Your task to perform on an android device: turn off sleep mode Image 0: 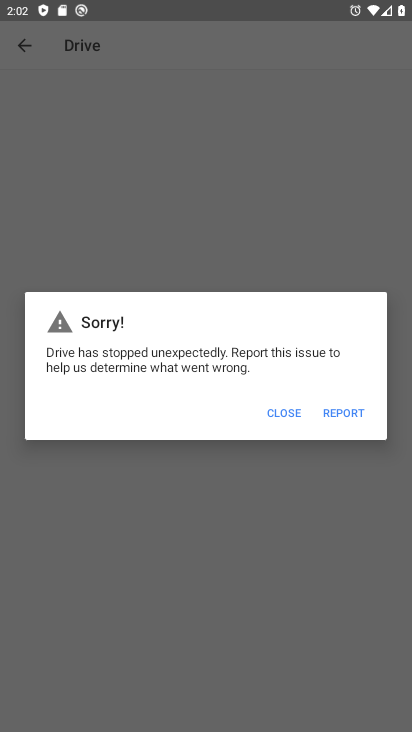
Step 0: press home button
Your task to perform on an android device: turn off sleep mode Image 1: 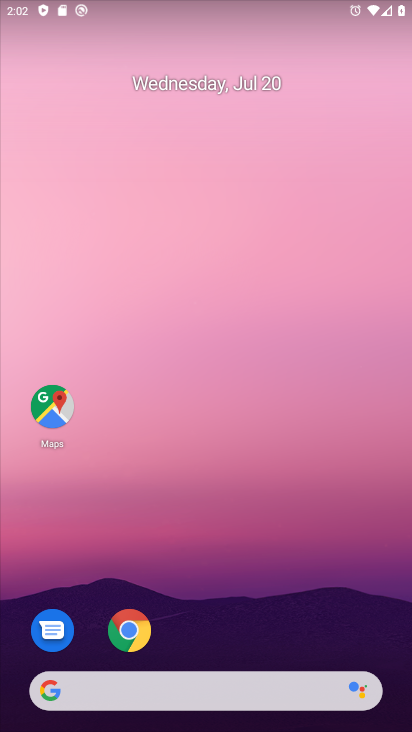
Step 1: drag from (56, 545) to (293, 135)
Your task to perform on an android device: turn off sleep mode Image 2: 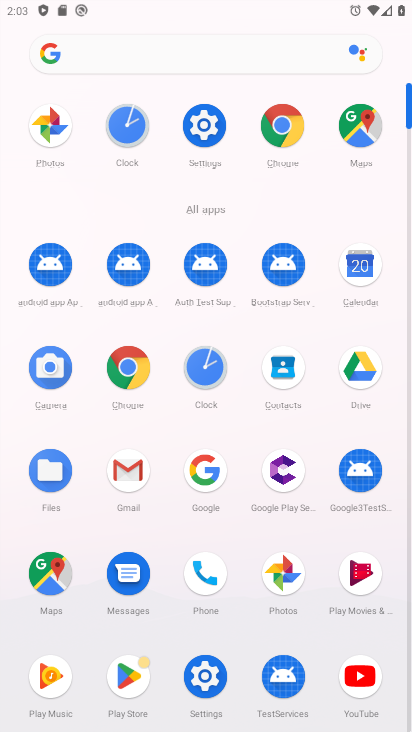
Step 2: click (209, 129)
Your task to perform on an android device: turn off sleep mode Image 3: 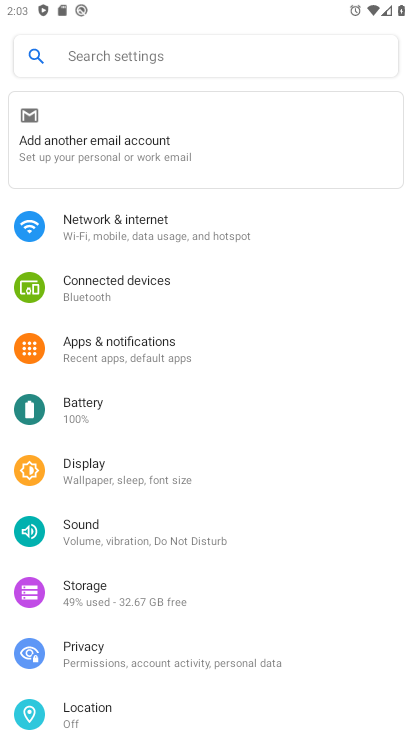
Step 3: task complete